Your task to perform on an android device: turn off translation in the chrome app Image 0: 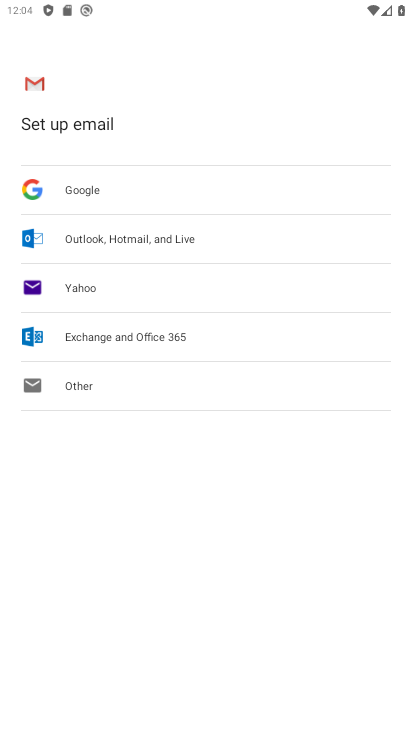
Step 0: press home button
Your task to perform on an android device: turn off translation in the chrome app Image 1: 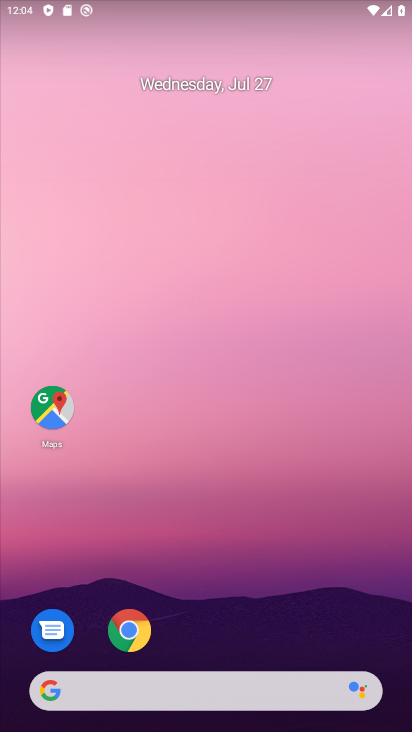
Step 1: drag from (216, 628) to (212, 20)
Your task to perform on an android device: turn off translation in the chrome app Image 2: 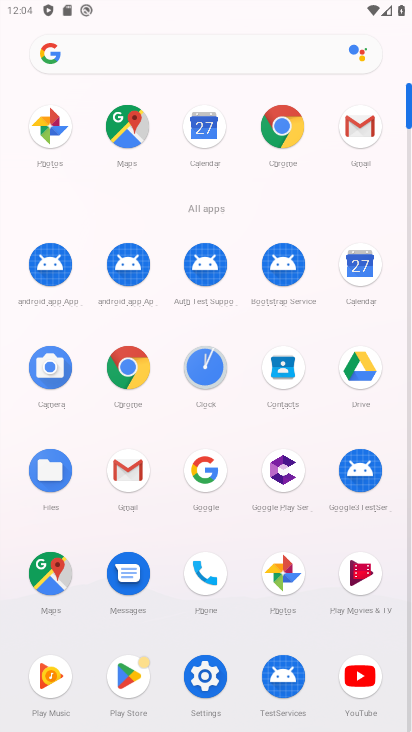
Step 2: click (132, 373)
Your task to perform on an android device: turn off translation in the chrome app Image 3: 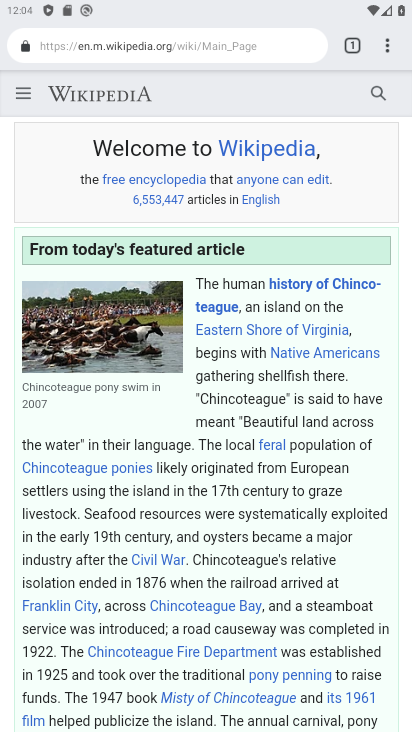
Step 3: click (386, 51)
Your task to perform on an android device: turn off translation in the chrome app Image 4: 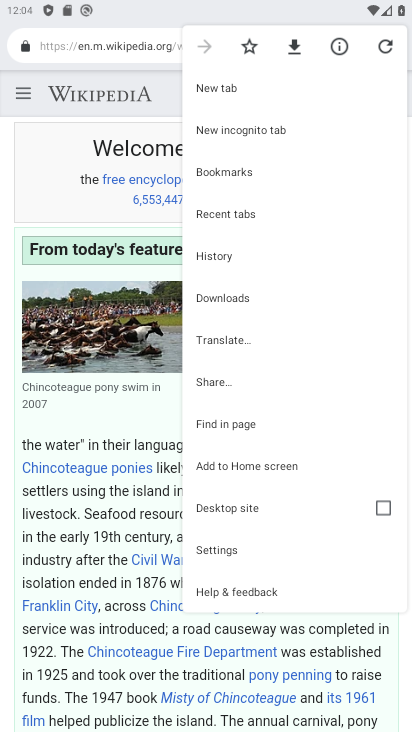
Step 4: click (233, 553)
Your task to perform on an android device: turn off translation in the chrome app Image 5: 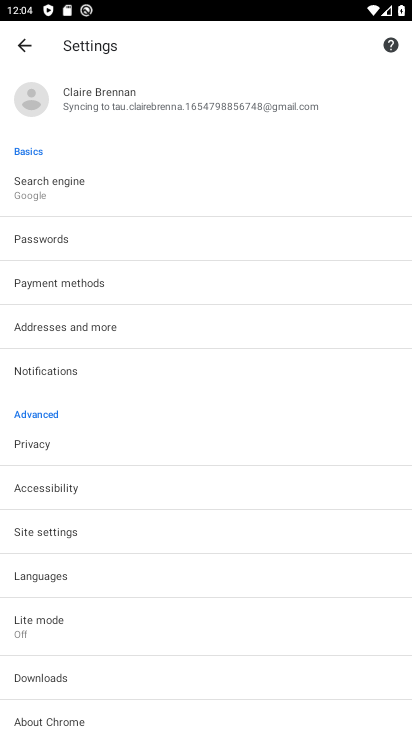
Step 5: click (89, 577)
Your task to perform on an android device: turn off translation in the chrome app Image 6: 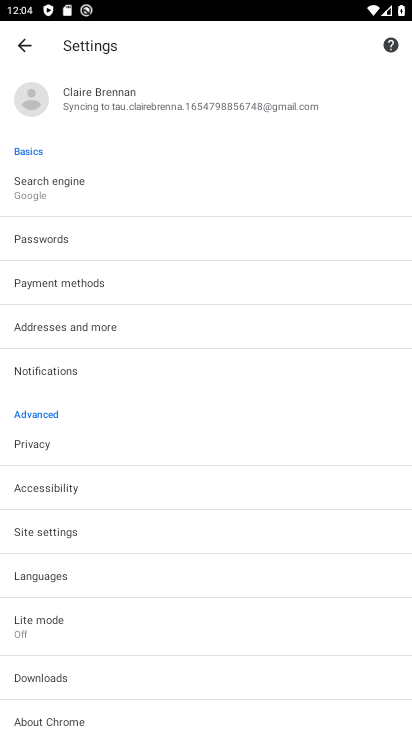
Step 6: click (80, 577)
Your task to perform on an android device: turn off translation in the chrome app Image 7: 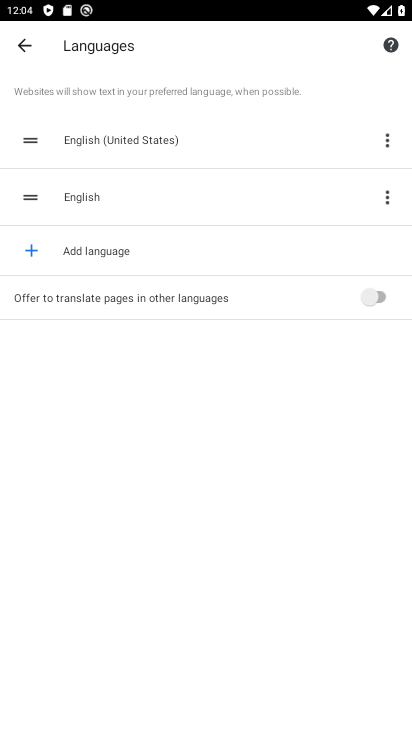
Step 7: task complete